Your task to perform on an android device: change the clock display to digital Image 0: 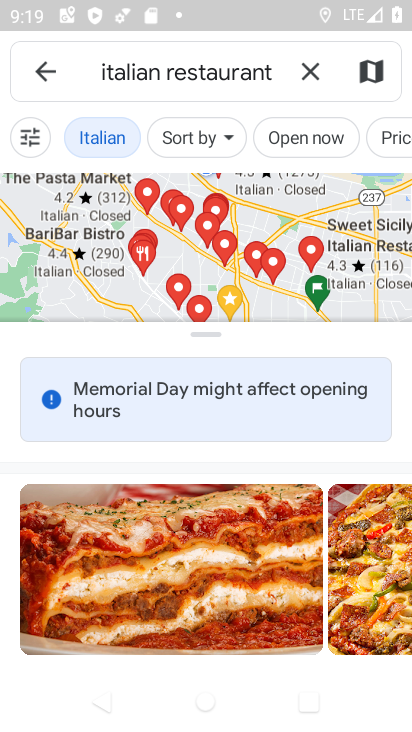
Step 0: press home button
Your task to perform on an android device: change the clock display to digital Image 1: 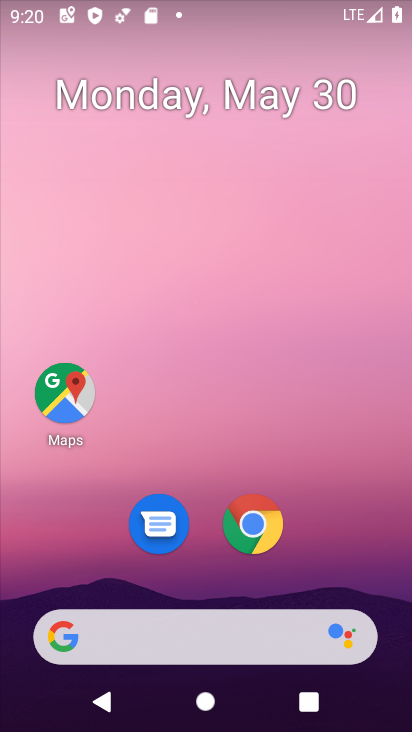
Step 1: drag from (323, 464) to (348, 67)
Your task to perform on an android device: change the clock display to digital Image 2: 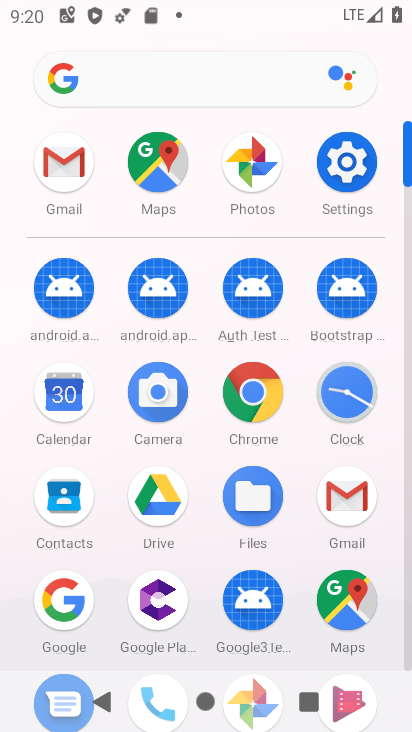
Step 2: click (355, 394)
Your task to perform on an android device: change the clock display to digital Image 3: 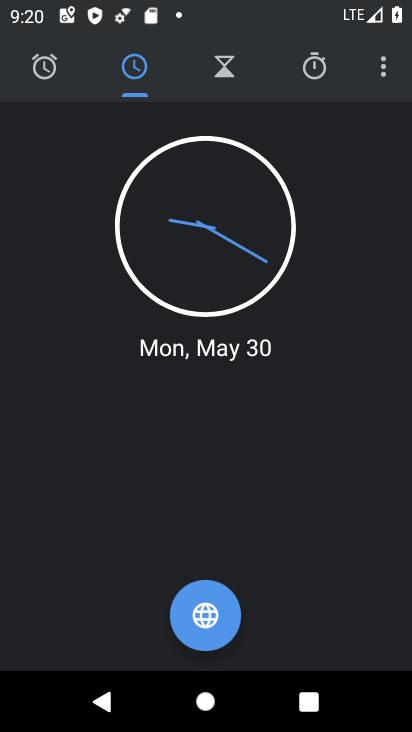
Step 3: click (384, 71)
Your task to perform on an android device: change the clock display to digital Image 4: 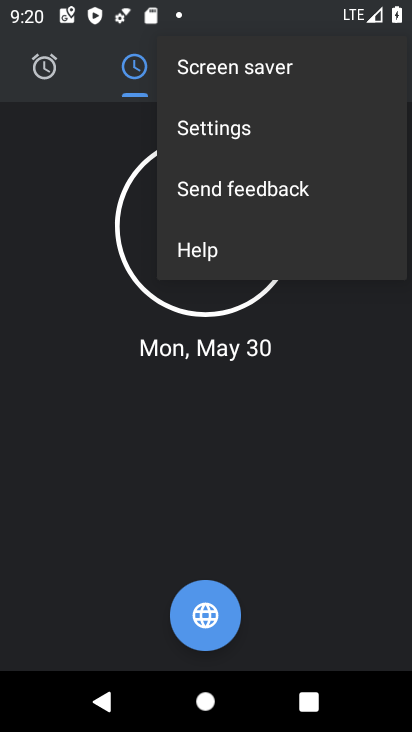
Step 4: click (307, 133)
Your task to perform on an android device: change the clock display to digital Image 5: 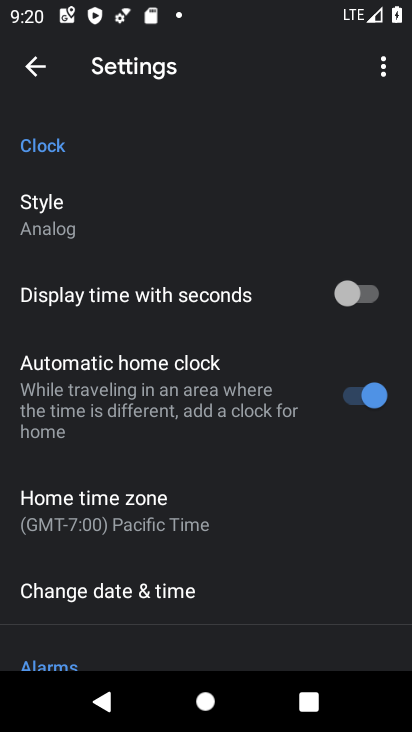
Step 5: click (86, 225)
Your task to perform on an android device: change the clock display to digital Image 6: 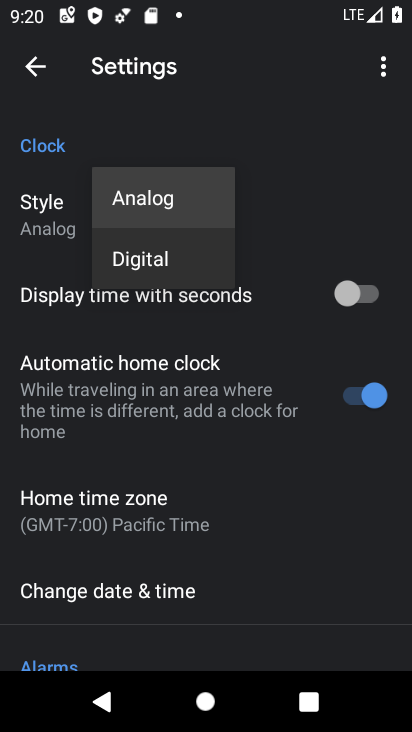
Step 6: click (122, 259)
Your task to perform on an android device: change the clock display to digital Image 7: 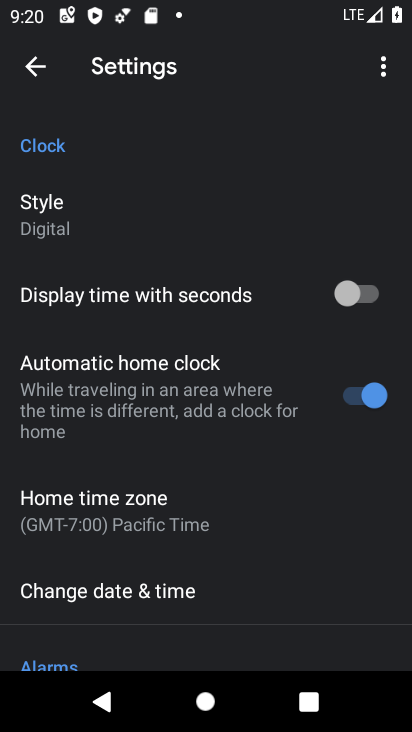
Step 7: task complete